Your task to perform on an android device: turn notification dots on Image 0: 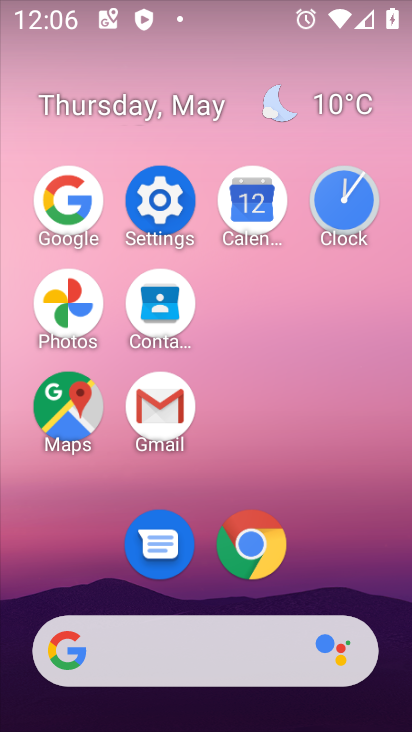
Step 0: click (166, 202)
Your task to perform on an android device: turn notification dots on Image 1: 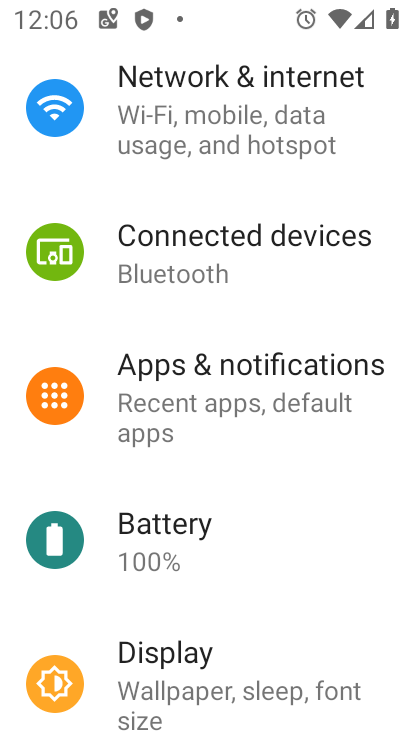
Step 1: click (212, 379)
Your task to perform on an android device: turn notification dots on Image 2: 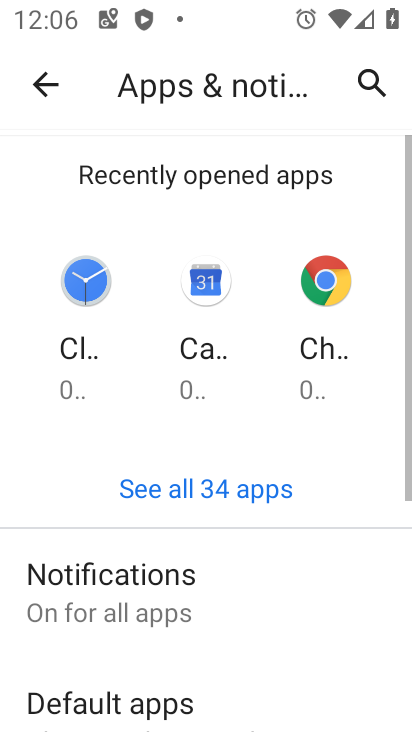
Step 2: click (242, 554)
Your task to perform on an android device: turn notification dots on Image 3: 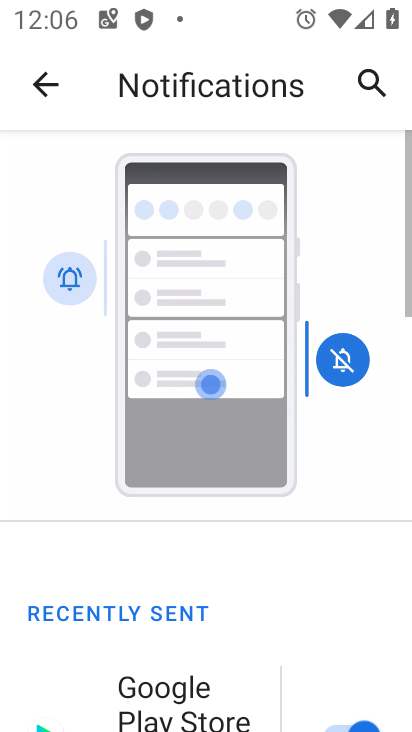
Step 3: drag from (222, 617) to (213, 130)
Your task to perform on an android device: turn notification dots on Image 4: 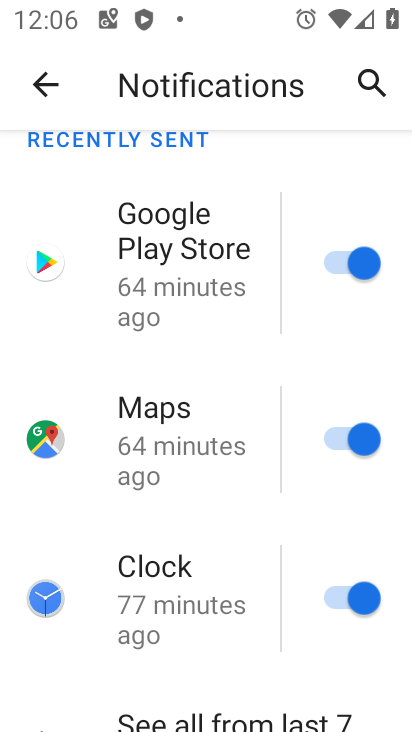
Step 4: drag from (227, 642) to (231, 124)
Your task to perform on an android device: turn notification dots on Image 5: 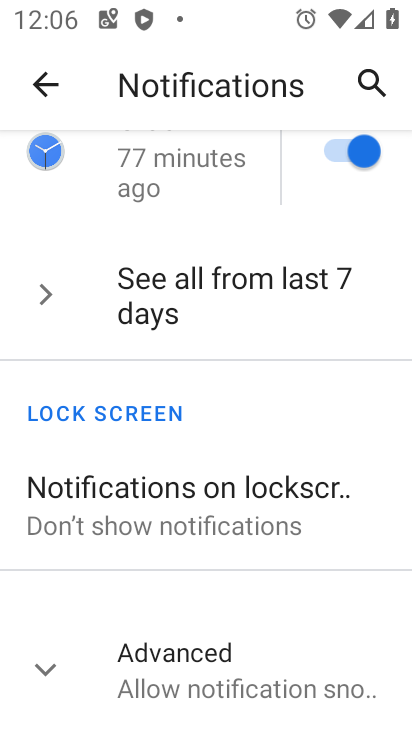
Step 5: drag from (235, 651) to (250, 185)
Your task to perform on an android device: turn notification dots on Image 6: 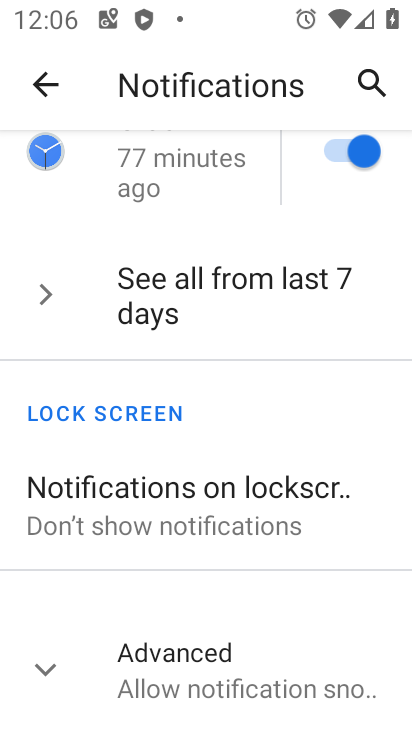
Step 6: click (221, 671)
Your task to perform on an android device: turn notification dots on Image 7: 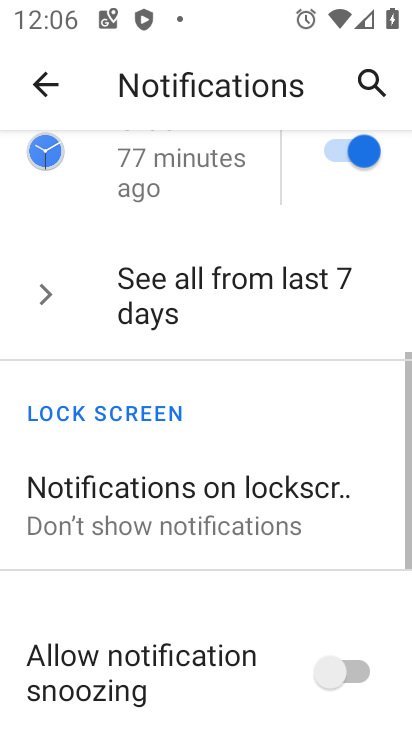
Step 7: drag from (221, 663) to (225, 115)
Your task to perform on an android device: turn notification dots on Image 8: 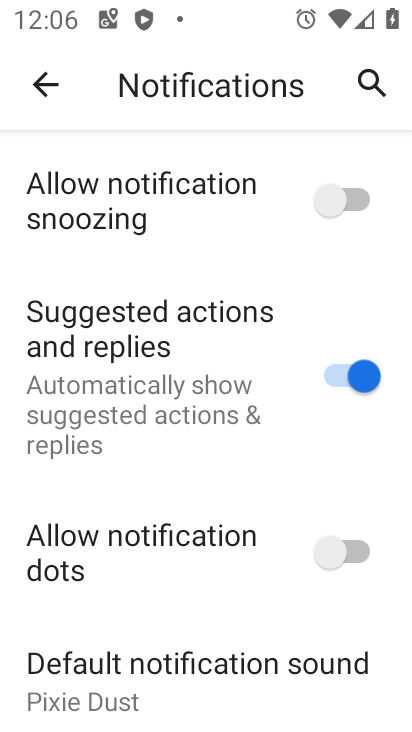
Step 8: click (348, 548)
Your task to perform on an android device: turn notification dots on Image 9: 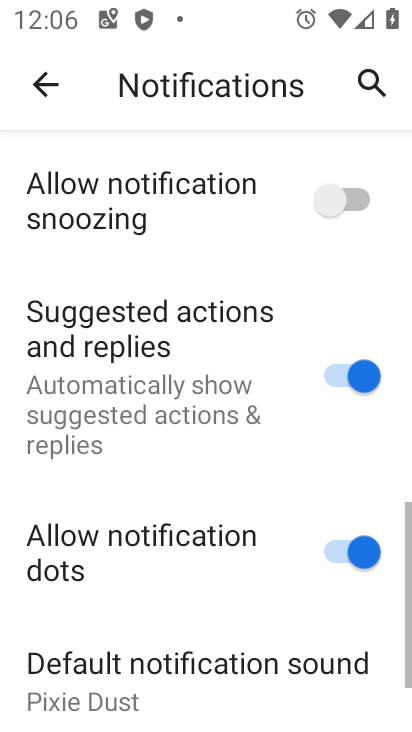
Step 9: task complete